Your task to perform on an android device: open app "Spotify: Music and Podcasts" (install if not already installed) Image 0: 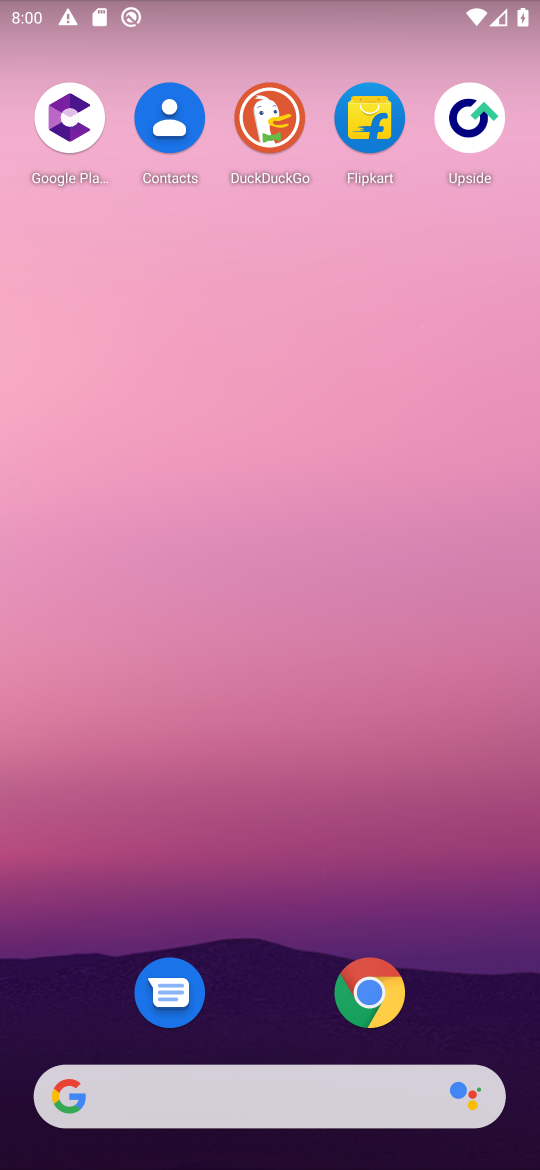
Step 0: drag from (411, 906) to (290, 120)
Your task to perform on an android device: open app "Spotify: Music and Podcasts" (install if not already installed) Image 1: 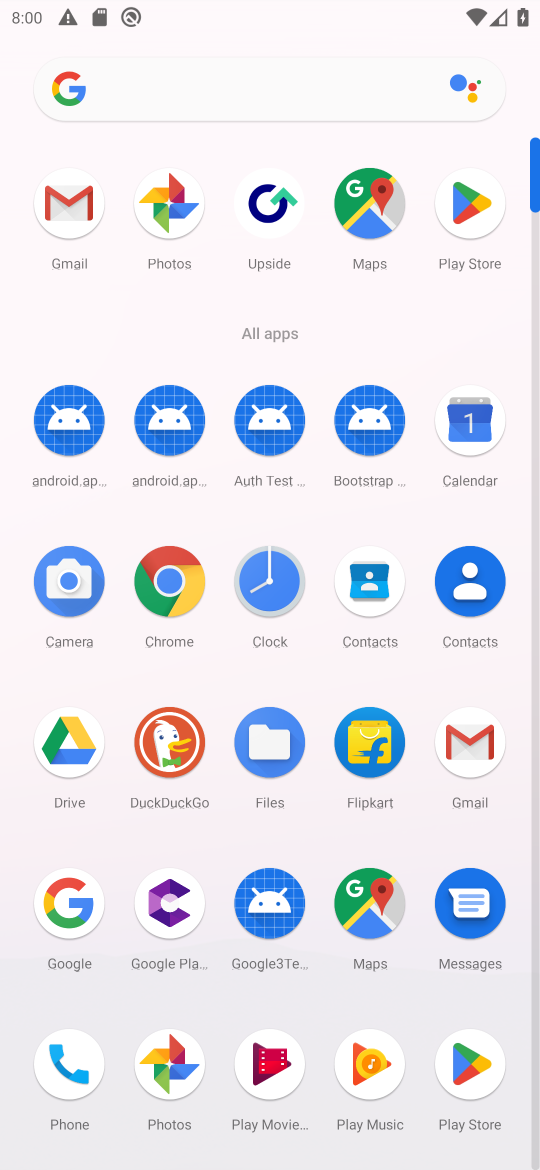
Step 1: click (475, 211)
Your task to perform on an android device: open app "Spotify: Music and Podcasts" (install if not already installed) Image 2: 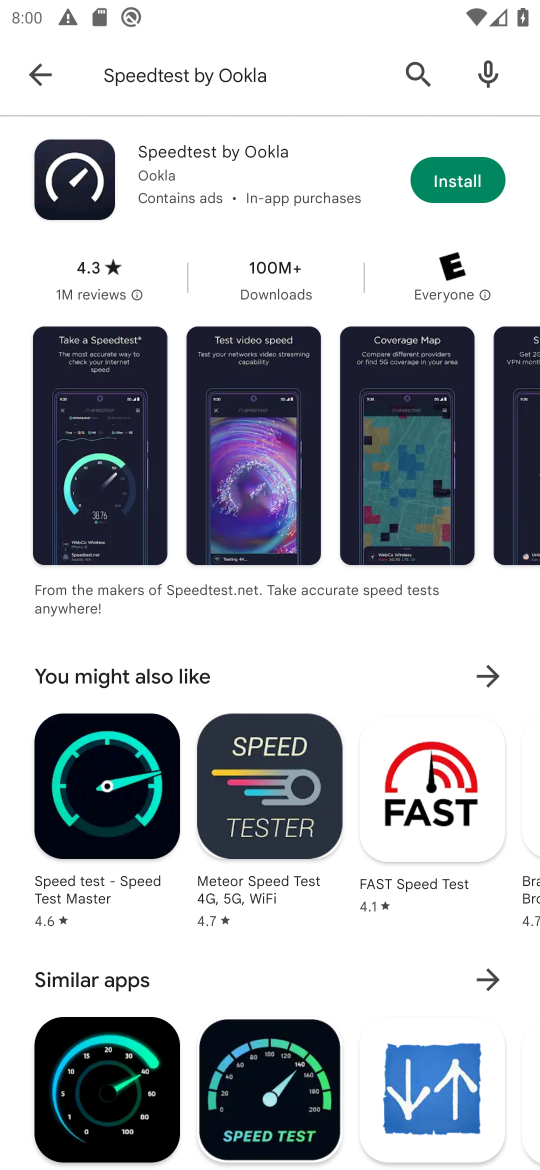
Step 2: click (211, 91)
Your task to perform on an android device: open app "Spotify: Music and Podcasts" (install if not already installed) Image 3: 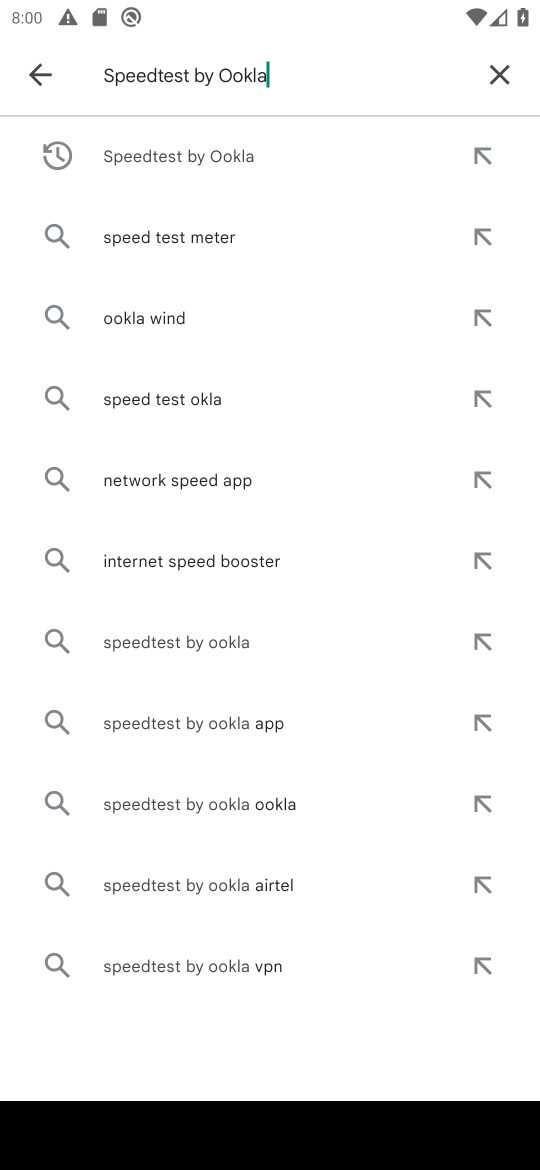
Step 3: click (488, 92)
Your task to perform on an android device: open app "Spotify: Music and Podcasts" (install if not already installed) Image 4: 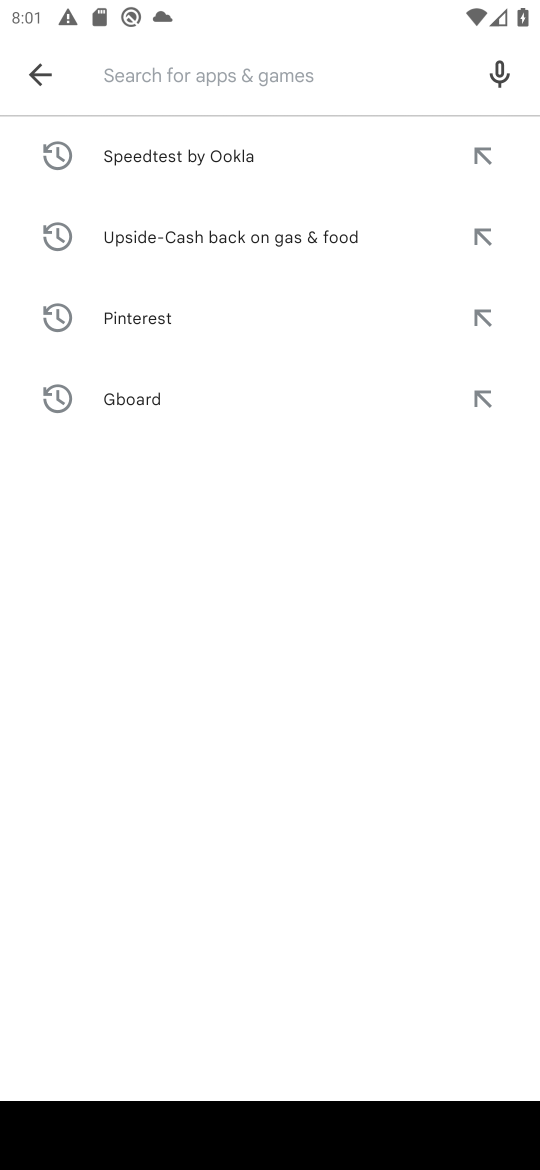
Step 4: type "Spotify: Music and Podcasts"
Your task to perform on an android device: open app "Spotify: Music and Podcasts" (install if not already installed) Image 5: 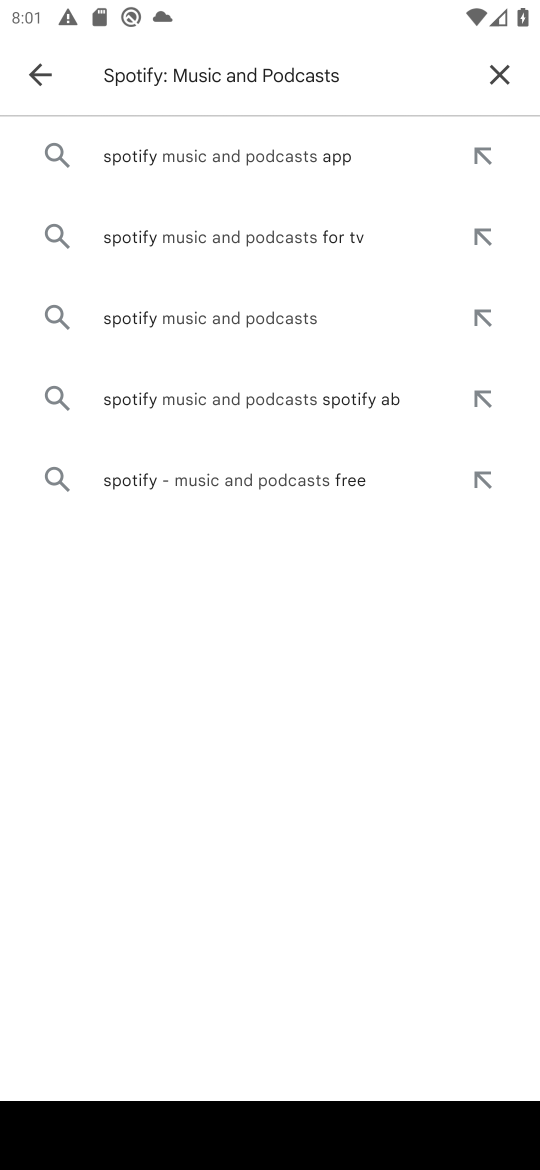
Step 5: press enter
Your task to perform on an android device: open app "Spotify: Music and Podcasts" (install if not already installed) Image 6: 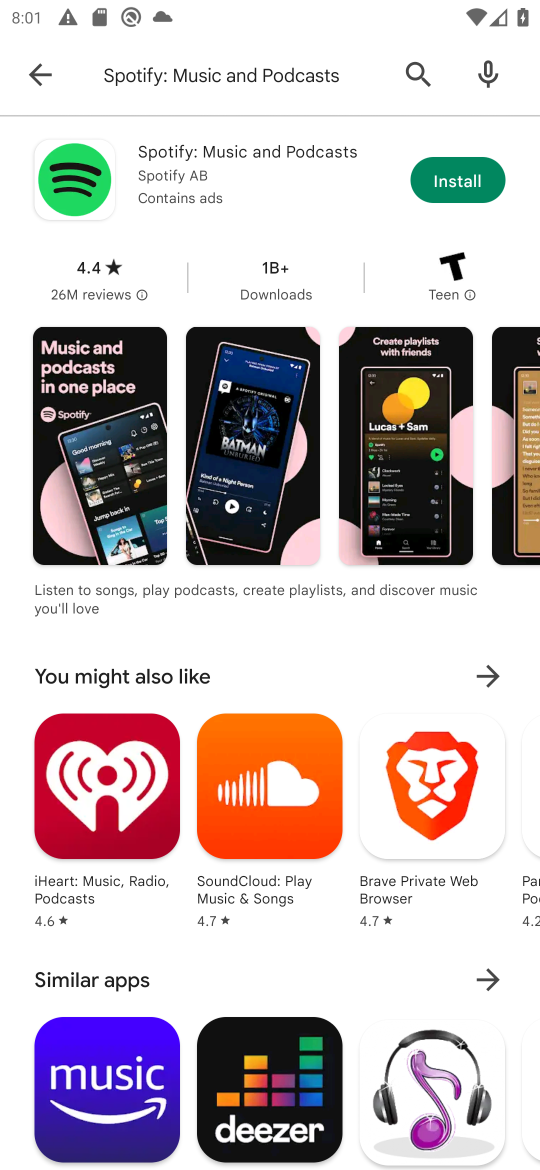
Step 6: click (461, 170)
Your task to perform on an android device: open app "Spotify: Music and Podcasts" (install if not already installed) Image 7: 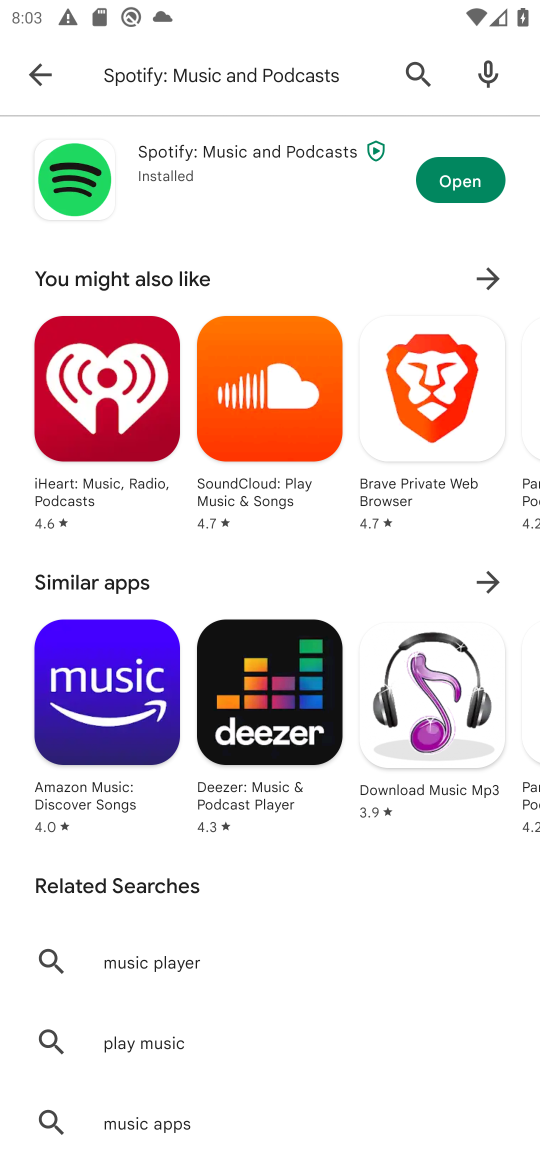
Step 7: click (490, 183)
Your task to perform on an android device: open app "Spotify: Music and Podcasts" (install if not already installed) Image 8: 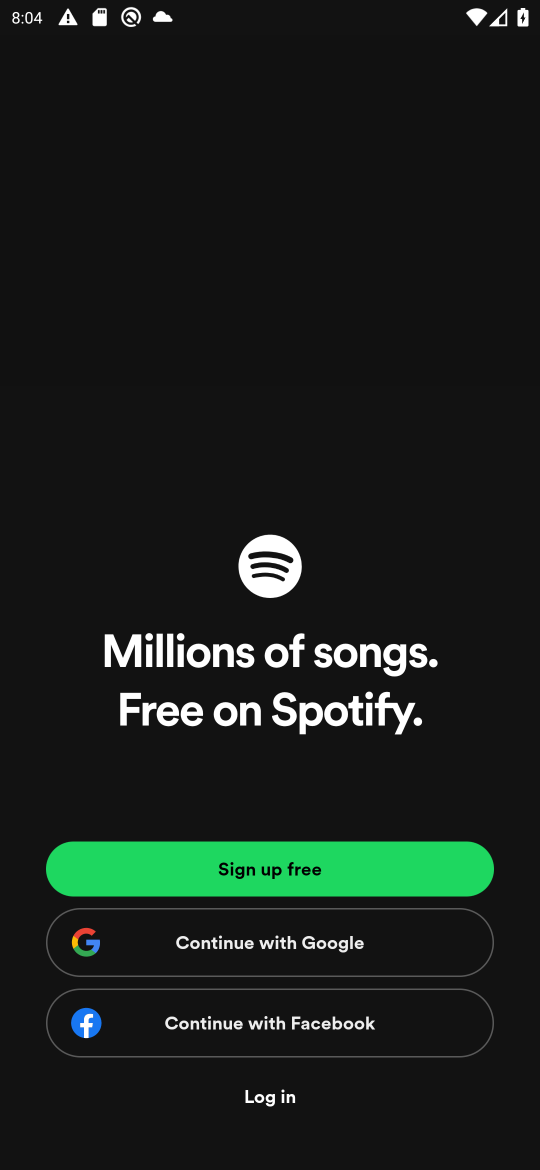
Step 8: task complete